Your task to perform on an android device: change text size in settings app Image 0: 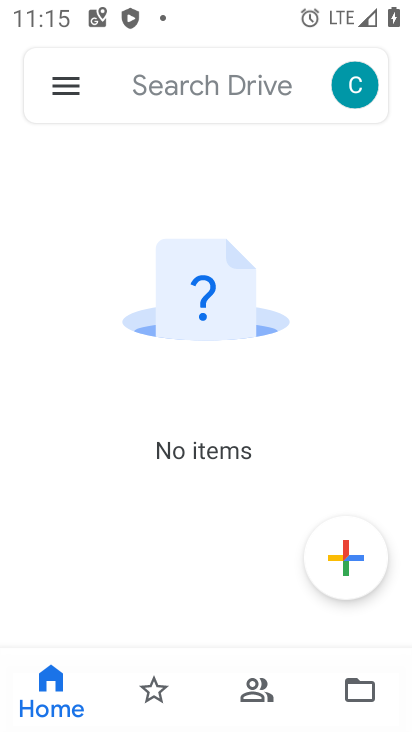
Step 0: press home button
Your task to perform on an android device: change text size in settings app Image 1: 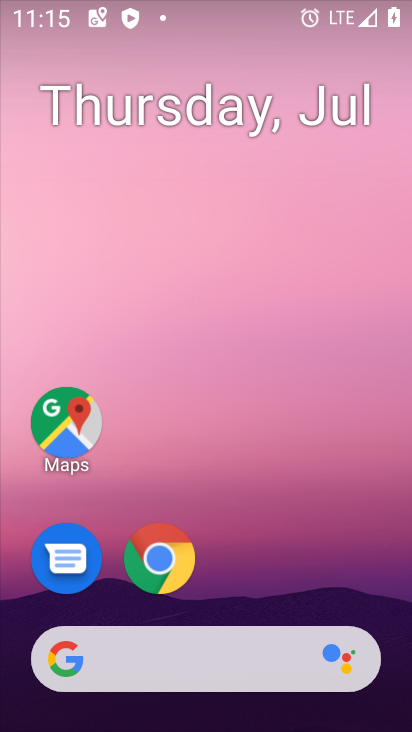
Step 1: drag from (371, 493) to (372, 52)
Your task to perform on an android device: change text size in settings app Image 2: 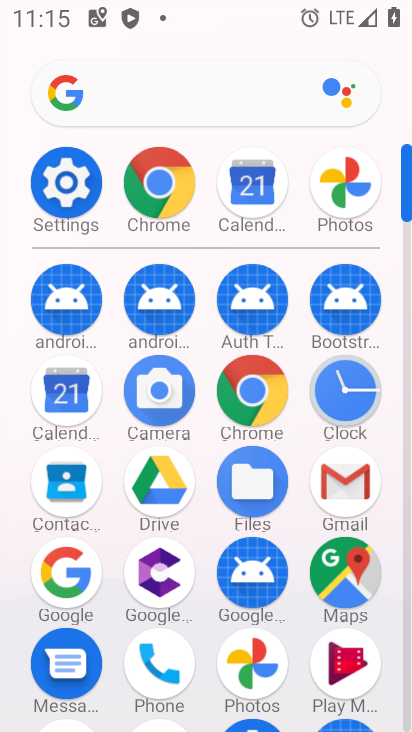
Step 2: click (81, 197)
Your task to perform on an android device: change text size in settings app Image 3: 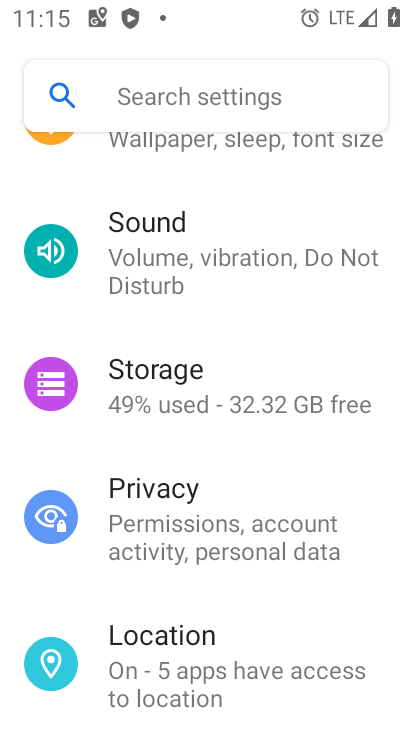
Step 3: drag from (364, 549) to (362, 411)
Your task to perform on an android device: change text size in settings app Image 4: 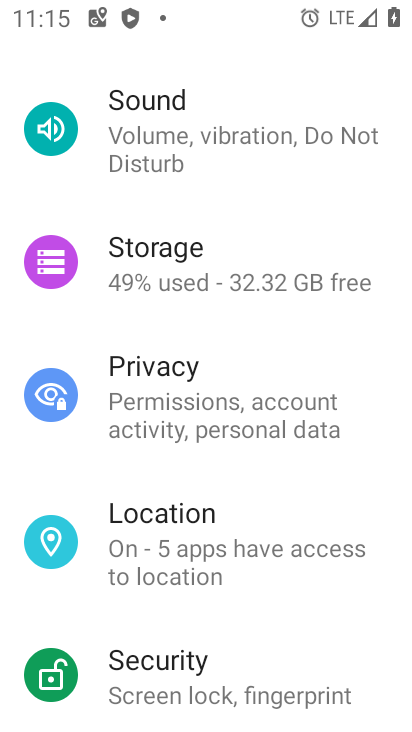
Step 4: drag from (385, 529) to (373, 339)
Your task to perform on an android device: change text size in settings app Image 5: 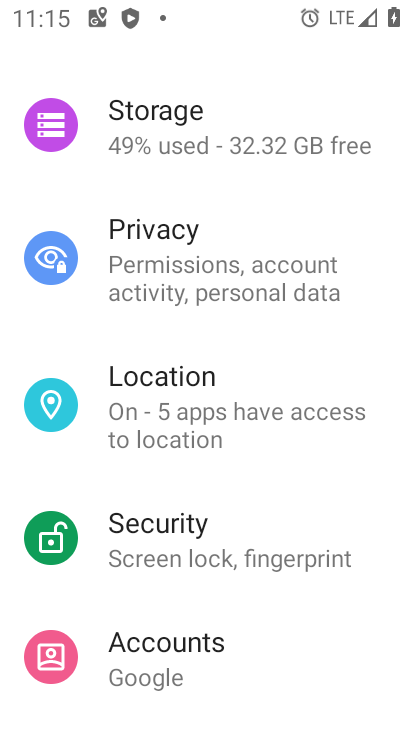
Step 5: drag from (355, 477) to (326, 188)
Your task to perform on an android device: change text size in settings app Image 6: 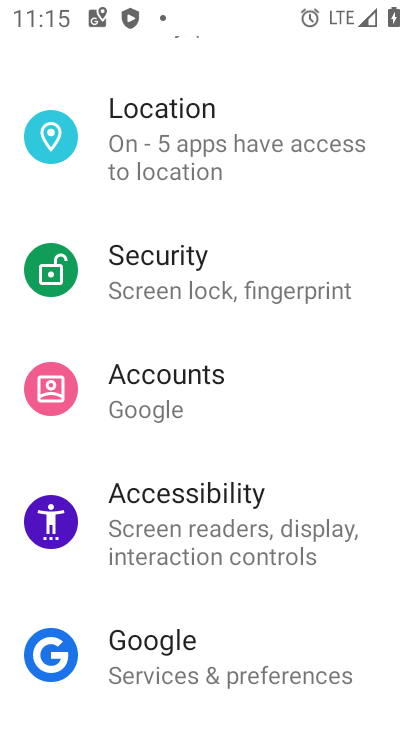
Step 6: drag from (307, 422) to (325, 267)
Your task to perform on an android device: change text size in settings app Image 7: 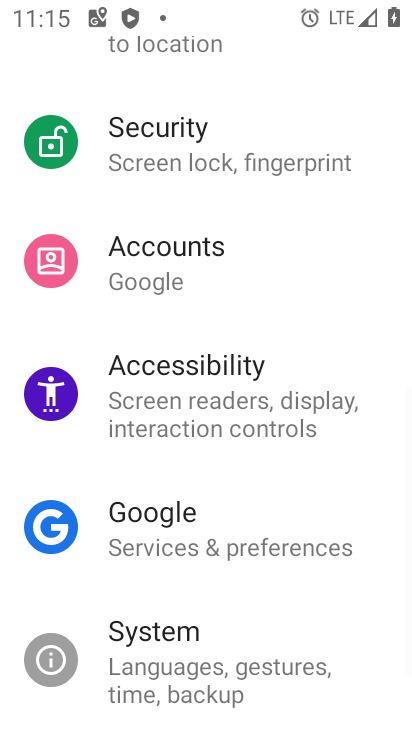
Step 7: drag from (347, 495) to (347, 231)
Your task to perform on an android device: change text size in settings app Image 8: 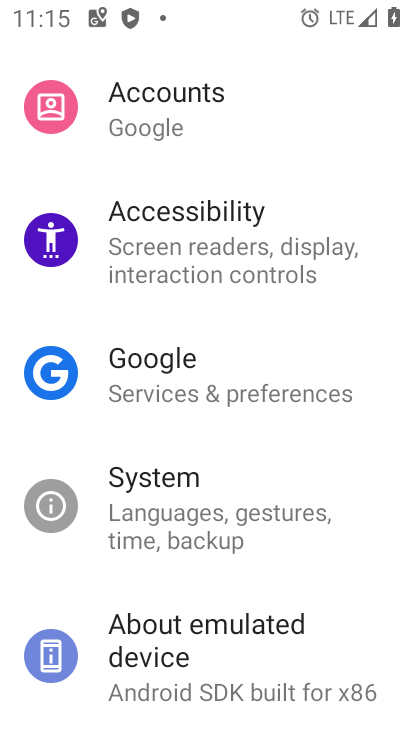
Step 8: drag from (348, 198) to (360, 337)
Your task to perform on an android device: change text size in settings app Image 9: 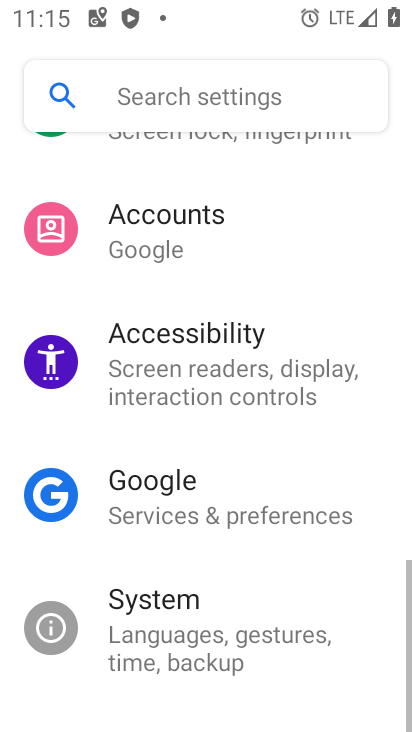
Step 9: drag from (358, 223) to (369, 408)
Your task to perform on an android device: change text size in settings app Image 10: 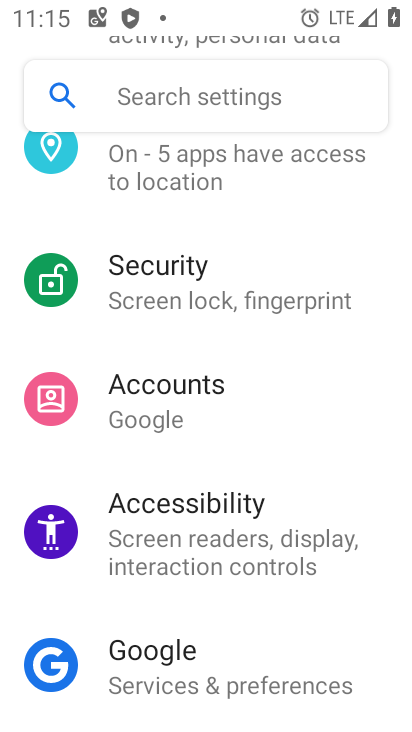
Step 10: drag from (367, 247) to (364, 377)
Your task to perform on an android device: change text size in settings app Image 11: 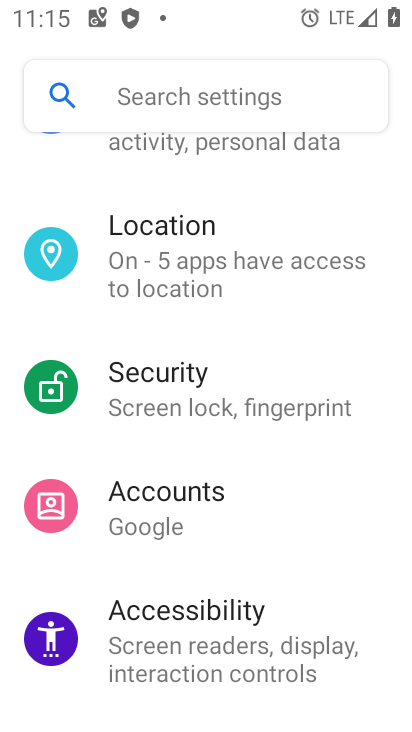
Step 11: drag from (356, 299) to (355, 422)
Your task to perform on an android device: change text size in settings app Image 12: 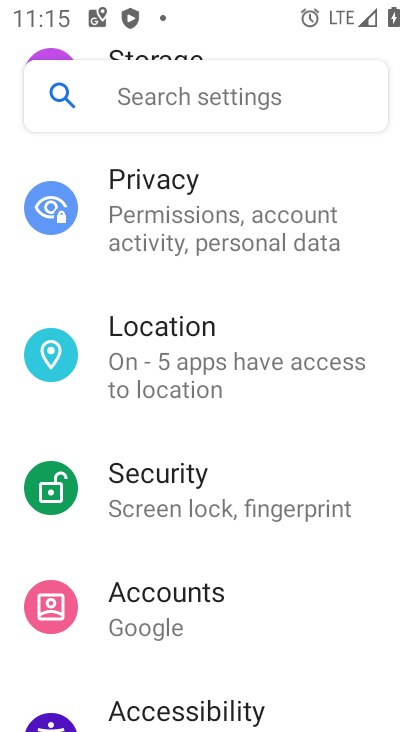
Step 12: drag from (355, 305) to (354, 435)
Your task to perform on an android device: change text size in settings app Image 13: 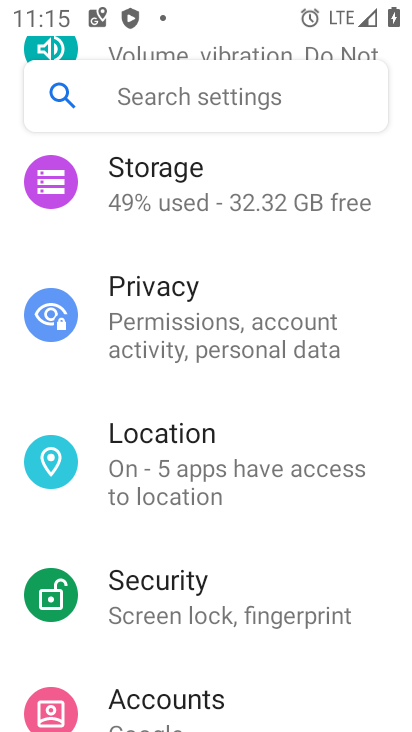
Step 13: drag from (349, 268) to (349, 428)
Your task to perform on an android device: change text size in settings app Image 14: 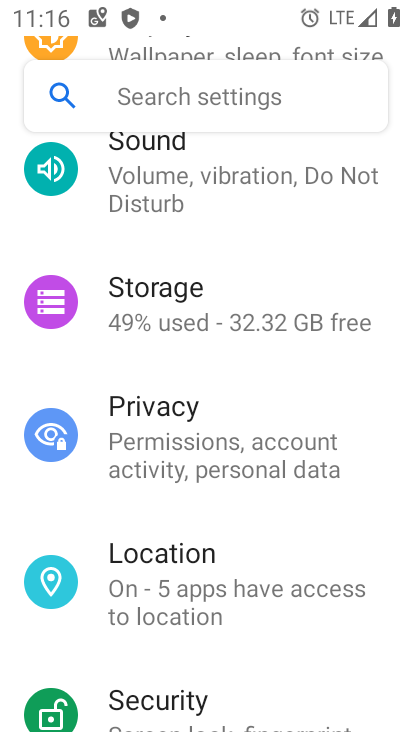
Step 14: drag from (352, 241) to (356, 387)
Your task to perform on an android device: change text size in settings app Image 15: 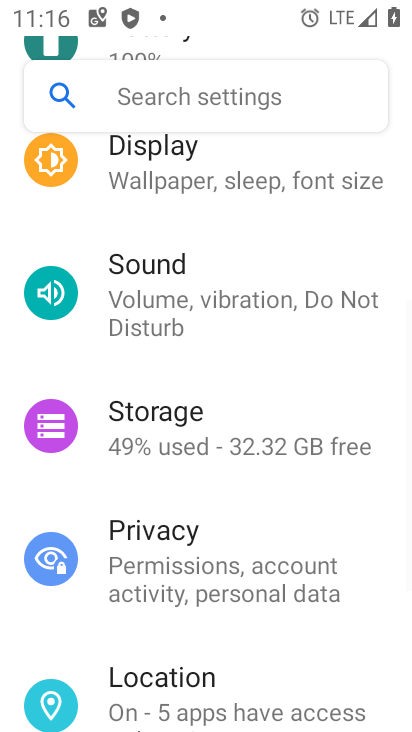
Step 15: drag from (362, 250) to (362, 394)
Your task to perform on an android device: change text size in settings app Image 16: 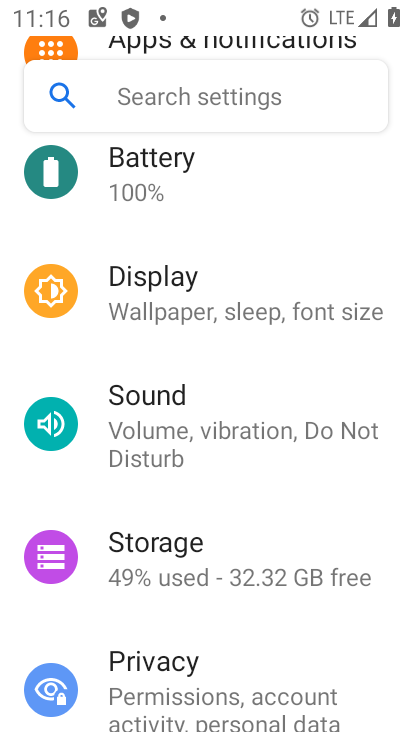
Step 16: click (342, 299)
Your task to perform on an android device: change text size in settings app Image 17: 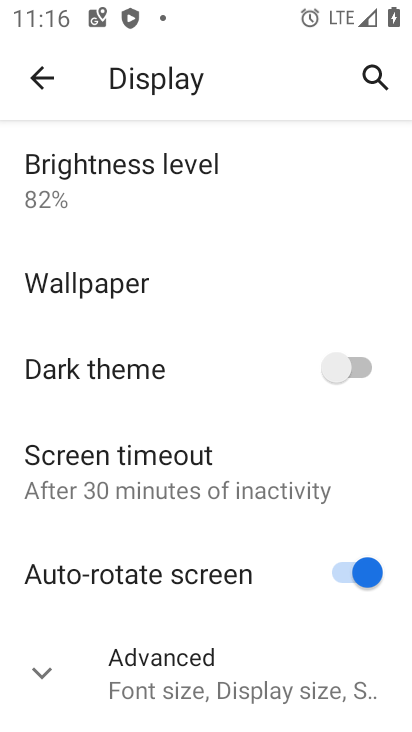
Step 17: click (154, 667)
Your task to perform on an android device: change text size in settings app Image 18: 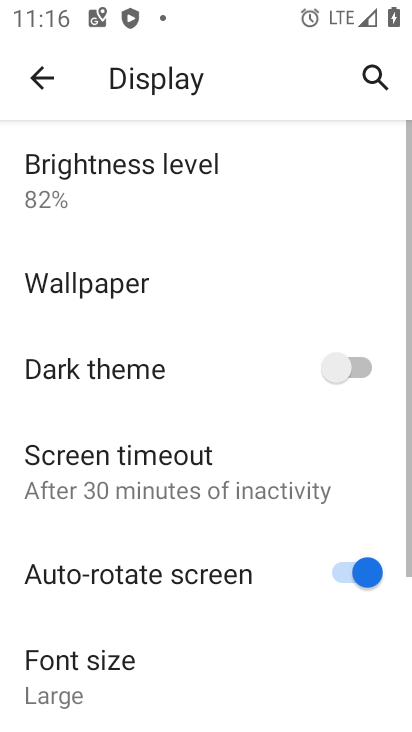
Step 18: drag from (249, 573) to (229, 373)
Your task to perform on an android device: change text size in settings app Image 19: 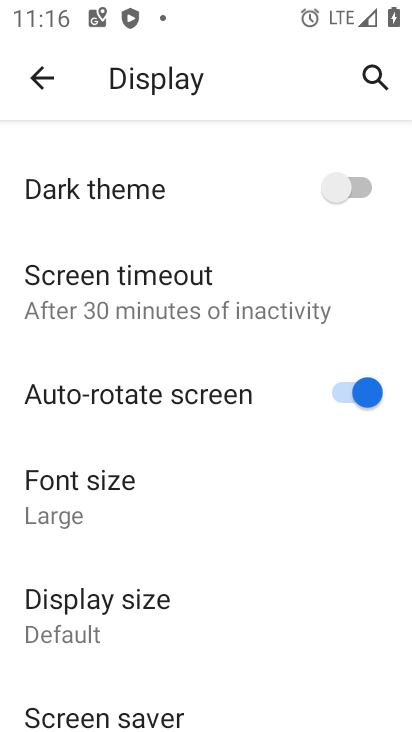
Step 19: click (187, 512)
Your task to perform on an android device: change text size in settings app Image 20: 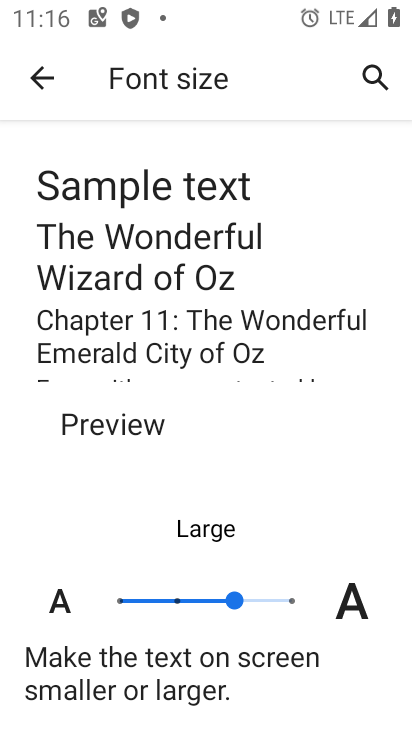
Step 20: click (294, 600)
Your task to perform on an android device: change text size in settings app Image 21: 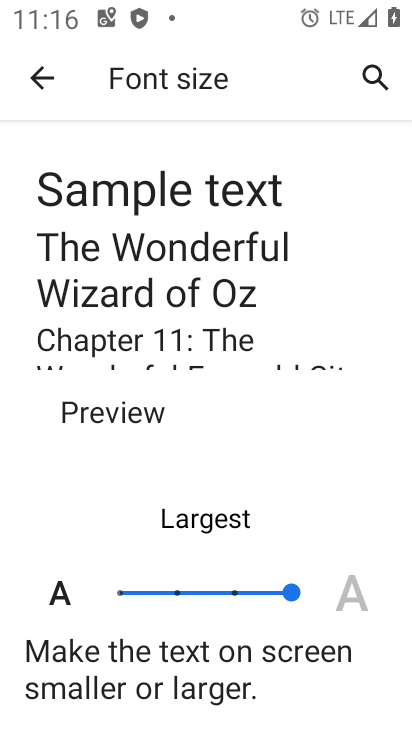
Step 21: task complete